Your task to perform on an android device: Go to settings Image 0: 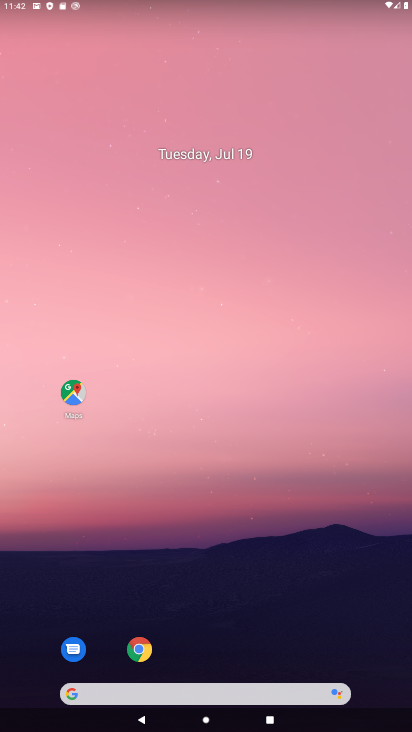
Step 0: drag from (226, 668) to (200, 155)
Your task to perform on an android device: Go to settings Image 1: 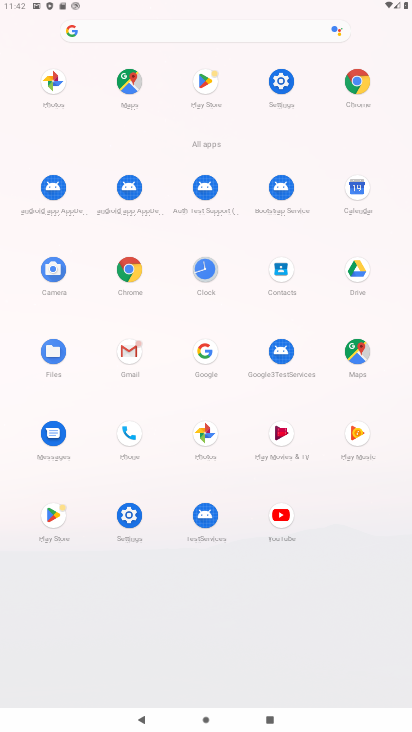
Step 1: click (277, 83)
Your task to perform on an android device: Go to settings Image 2: 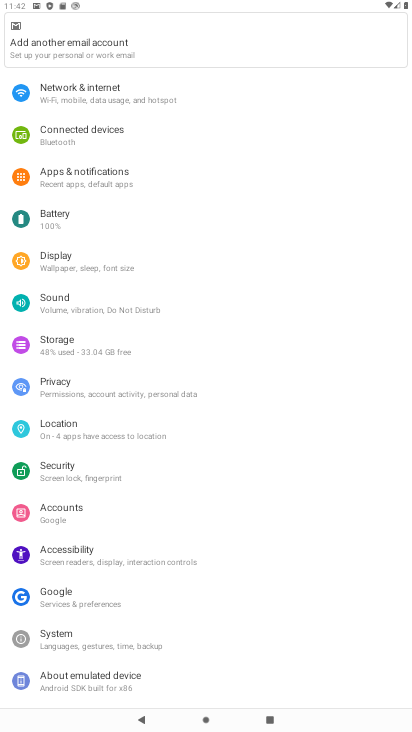
Step 2: task complete